Your task to perform on an android device: Is it going to rain this weekend? Image 0: 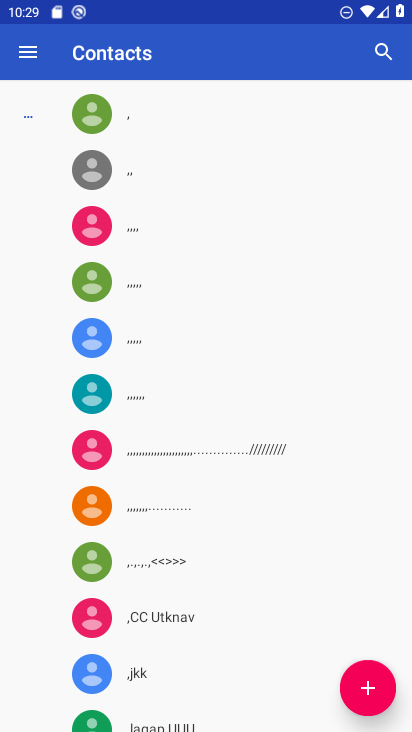
Step 0: press home button
Your task to perform on an android device: Is it going to rain this weekend? Image 1: 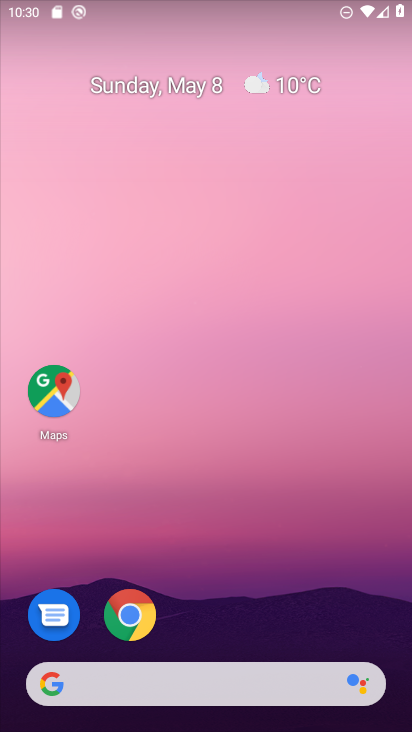
Step 1: drag from (302, 612) to (258, 659)
Your task to perform on an android device: Is it going to rain this weekend? Image 2: 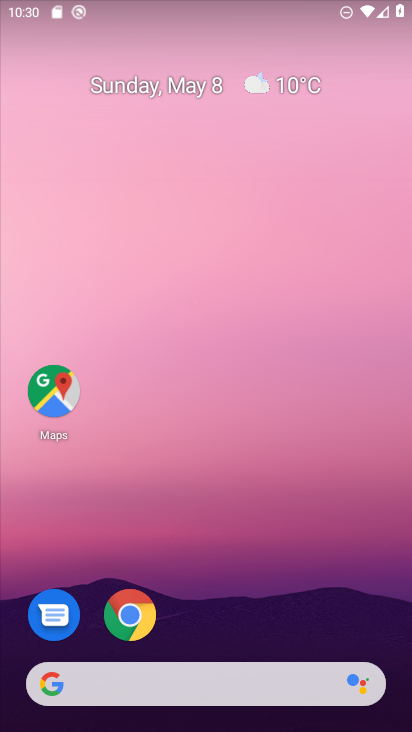
Step 2: click (294, 79)
Your task to perform on an android device: Is it going to rain this weekend? Image 3: 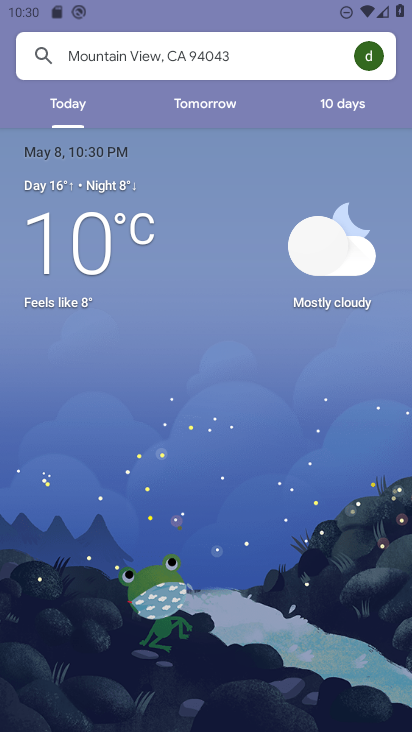
Step 3: click (351, 107)
Your task to perform on an android device: Is it going to rain this weekend? Image 4: 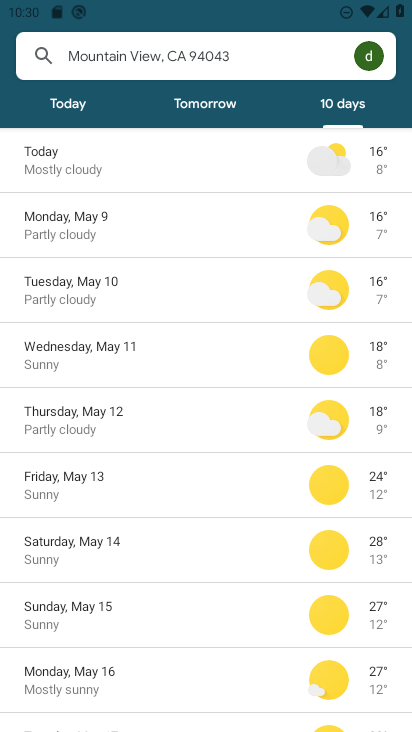
Step 4: task complete